Your task to perform on an android device: toggle translation in the chrome app Image 0: 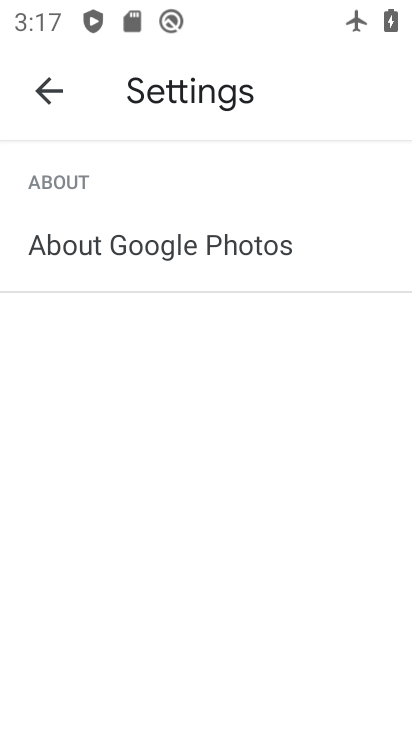
Step 0: press home button
Your task to perform on an android device: toggle translation in the chrome app Image 1: 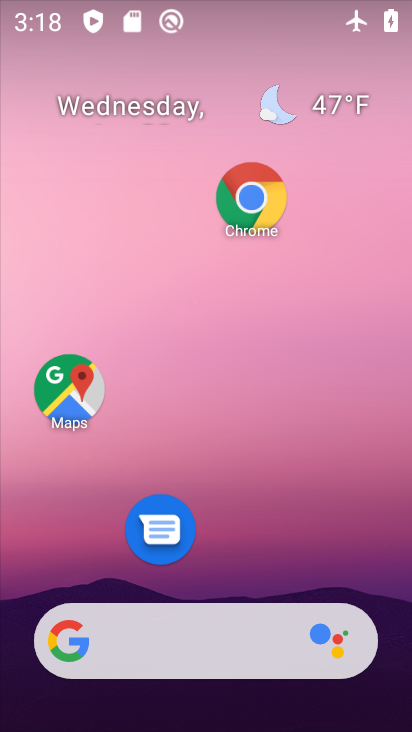
Step 1: click (252, 206)
Your task to perform on an android device: toggle translation in the chrome app Image 2: 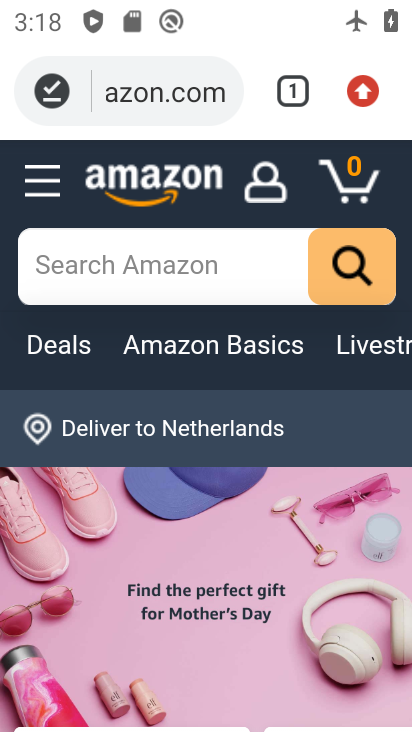
Step 2: click (353, 96)
Your task to perform on an android device: toggle translation in the chrome app Image 3: 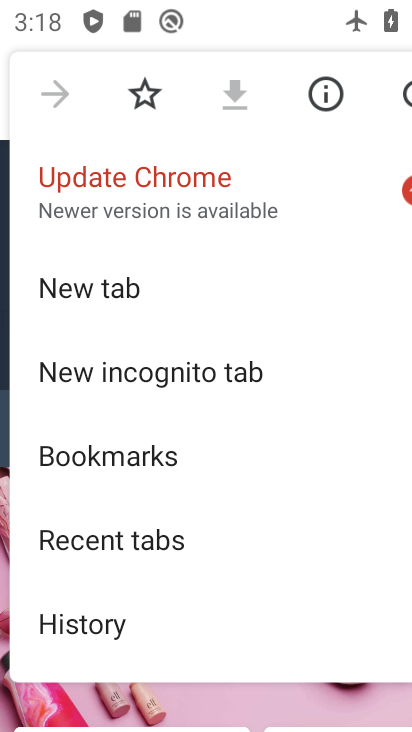
Step 3: drag from (232, 602) to (240, 165)
Your task to perform on an android device: toggle translation in the chrome app Image 4: 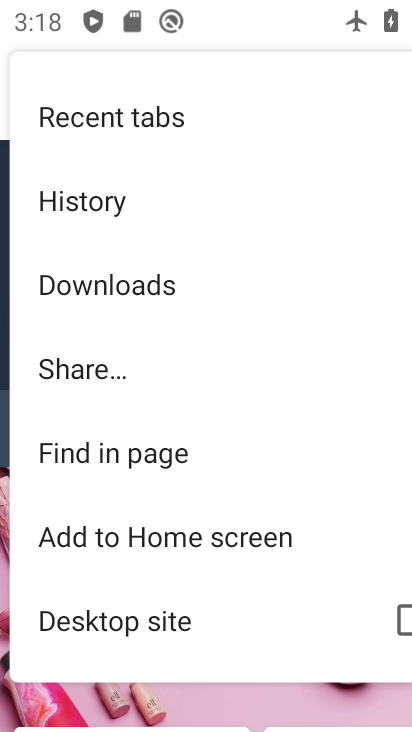
Step 4: drag from (203, 564) to (224, 160)
Your task to perform on an android device: toggle translation in the chrome app Image 5: 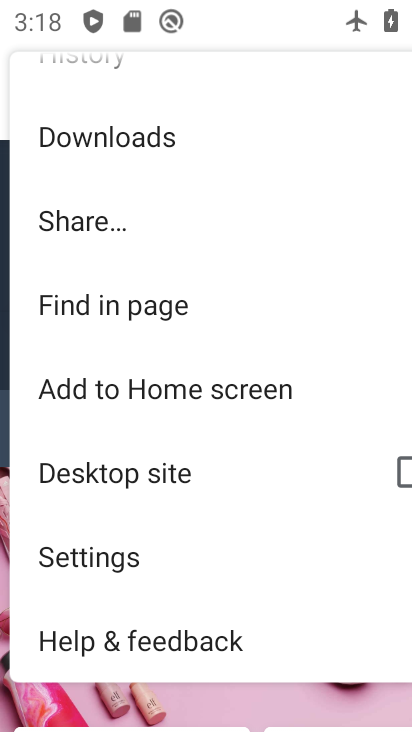
Step 5: click (163, 555)
Your task to perform on an android device: toggle translation in the chrome app Image 6: 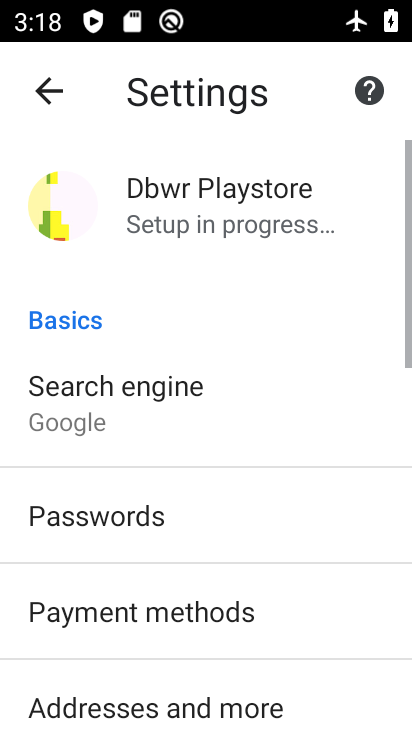
Step 6: drag from (241, 588) to (232, 106)
Your task to perform on an android device: toggle translation in the chrome app Image 7: 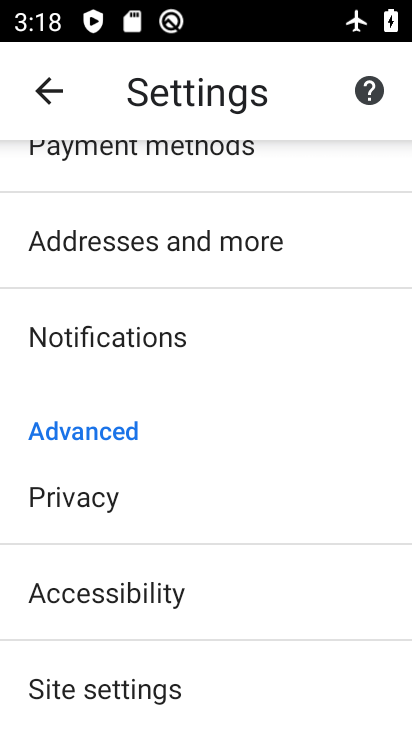
Step 7: drag from (212, 640) to (210, 144)
Your task to perform on an android device: toggle translation in the chrome app Image 8: 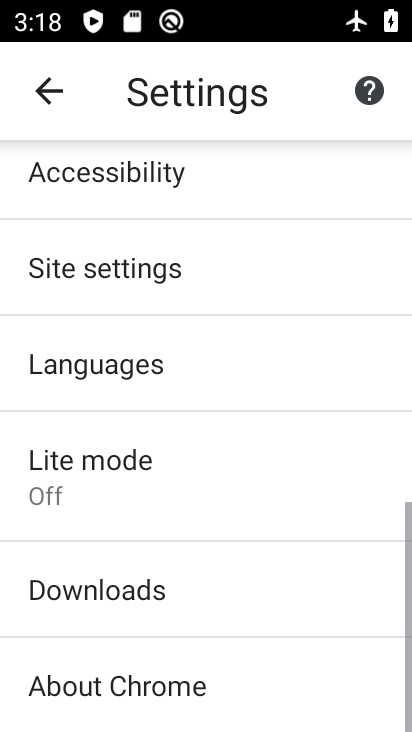
Step 8: click (186, 374)
Your task to perform on an android device: toggle translation in the chrome app Image 9: 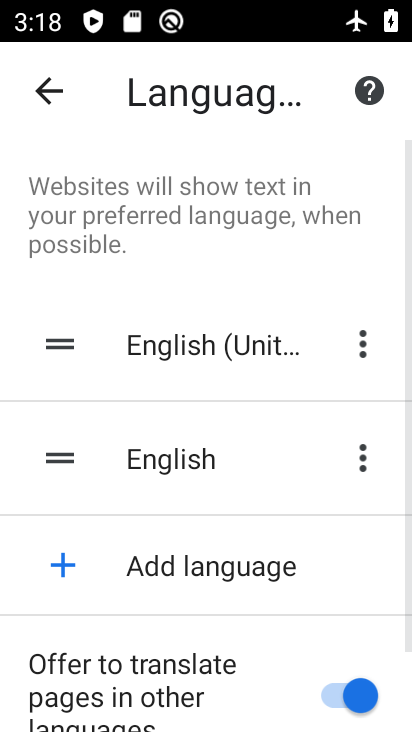
Step 9: click (343, 697)
Your task to perform on an android device: toggle translation in the chrome app Image 10: 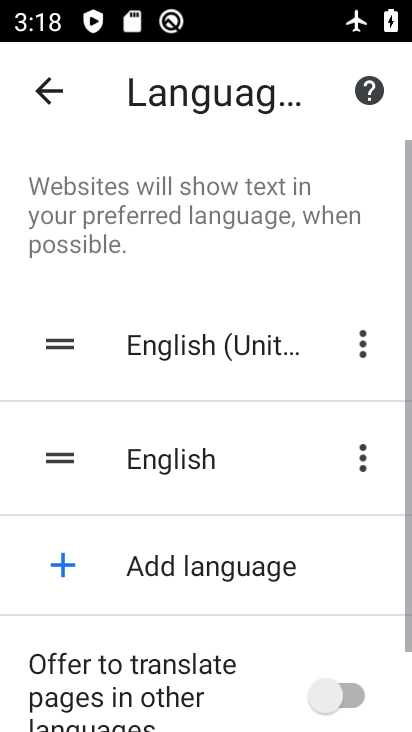
Step 10: task complete